Your task to perform on an android device: turn on the 12-hour format for clock Image 0: 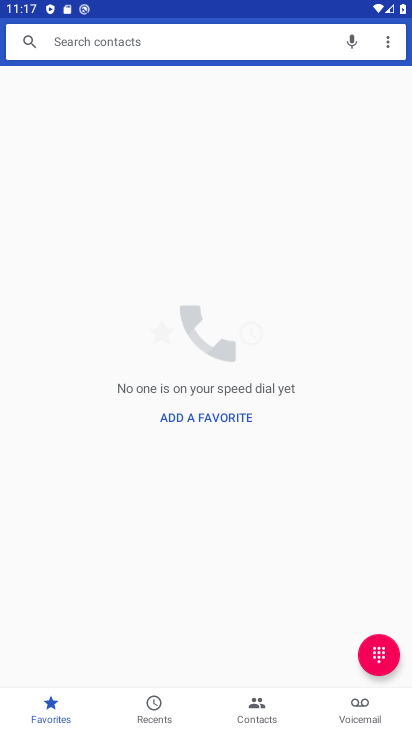
Step 0: press home button
Your task to perform on an android device: turn on the 12-hour format for clock Image 1: 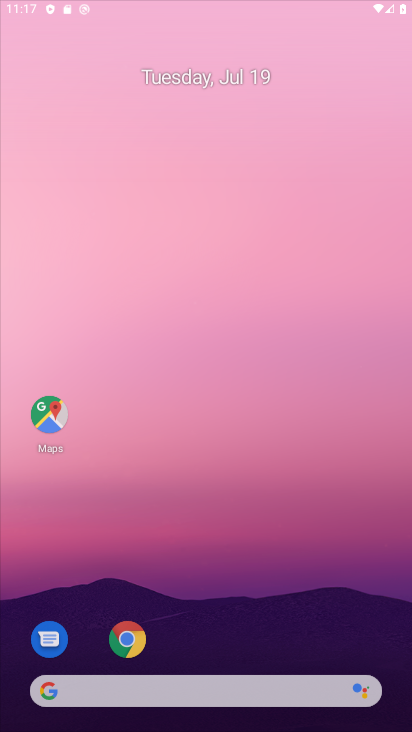
Step 1: drag from (211, 399) to (312, 71)
Your task to perform on an android device: turn on the 12-hour format for clock Image 2: 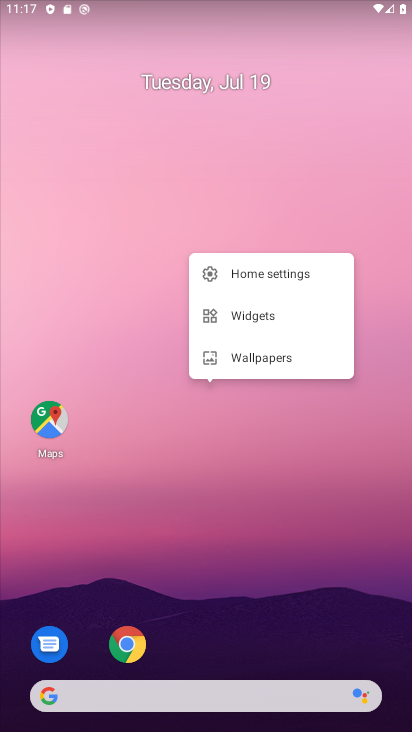
Step 2: drag from (237, 488) to (292, 97)
Your task to perform on an android device: turn on the 12-hour format for clock Image 3: 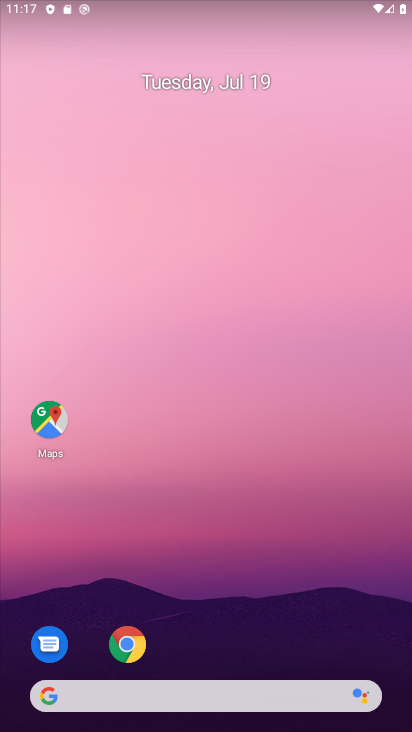
Step 3: drag from (320, 510) to (359, 17)
Your task to perform on an android device: turn on the 12-hour format for clock Image 4: 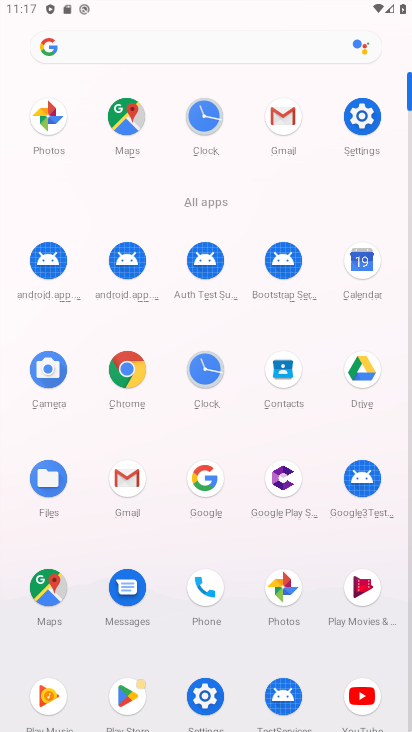
Step 4: click (205, 379)
Your task to perform on an android device: turn on the 12-hour format for clock Image 5: 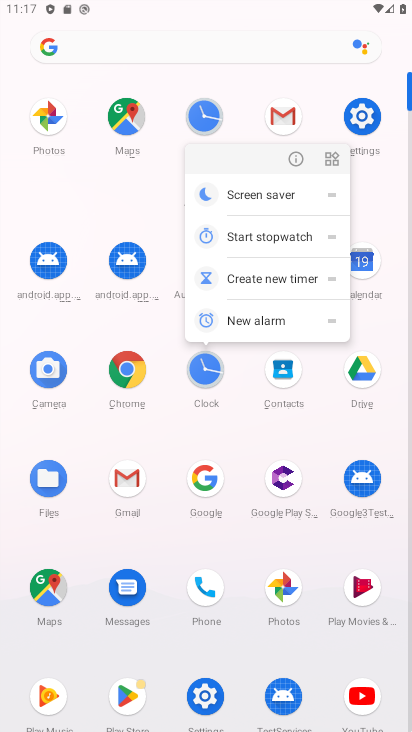
Step 5: click (293, 168)
Your task to perform on an android device: turn on the 12-hour format for clock Image 6: 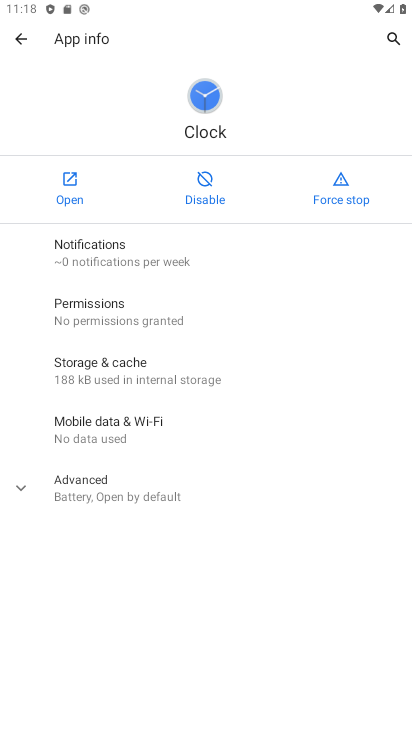
Step 6: click (70, 192)
Your task to perform on an android device: turn on the 12-hour format for clock Image 7: 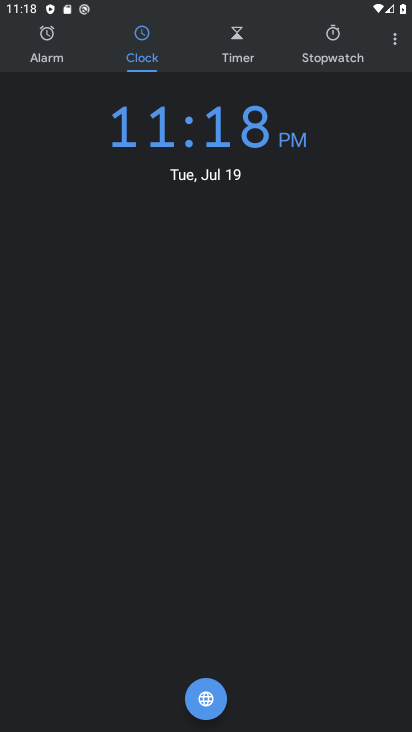
Step 7: click (390, 42)
Your task to perform on an android device: turn on the 12-hour format for clock Image 8: 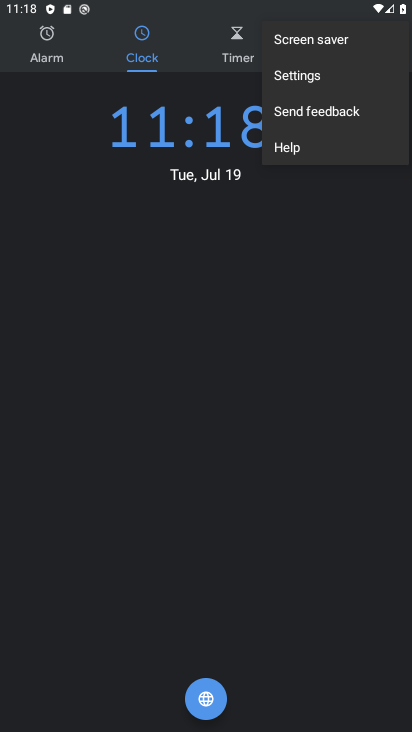
Step 8: click (299, 67)
Your task to perform on an android device: turn on the 12-hour format for clock Image 9: 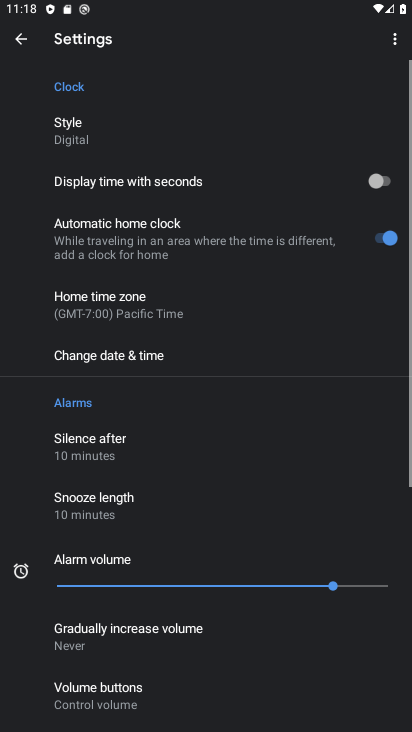
Step 9: drag from (224, 461) to (238, 202)
Your task to perform on an android device: turn on the 12-hour format for clock Image 10: 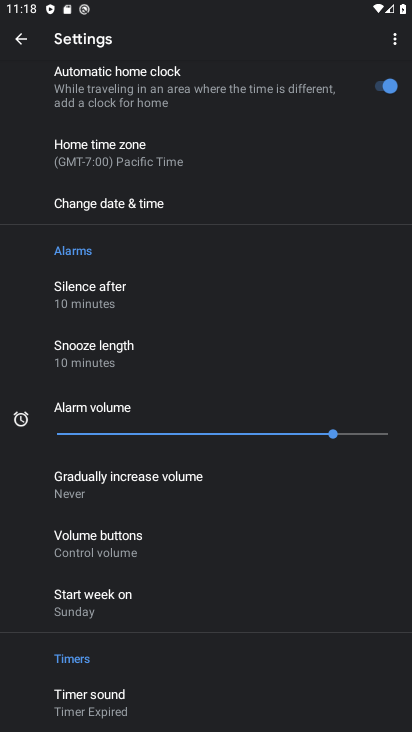
Step 10: drag from (201, 548) to (243, 198)
Your task to perform on an android device: turn on the 12-hour format for clock Image 11: 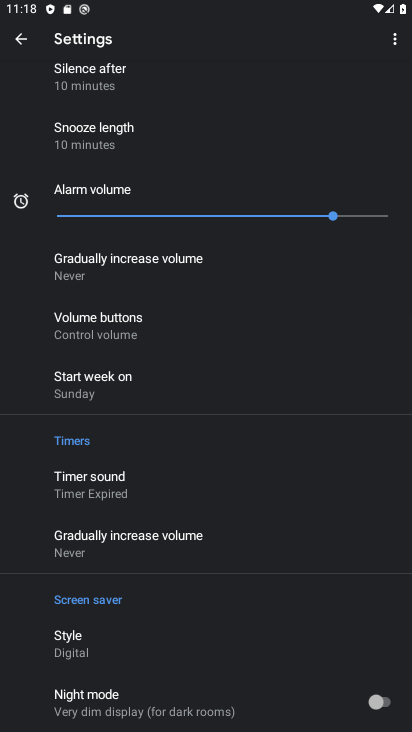
Step 11: drag from (226, 170) to (204, 436)
Your task to perform on an android device: turn on the 12-hour format for clock Image 12: 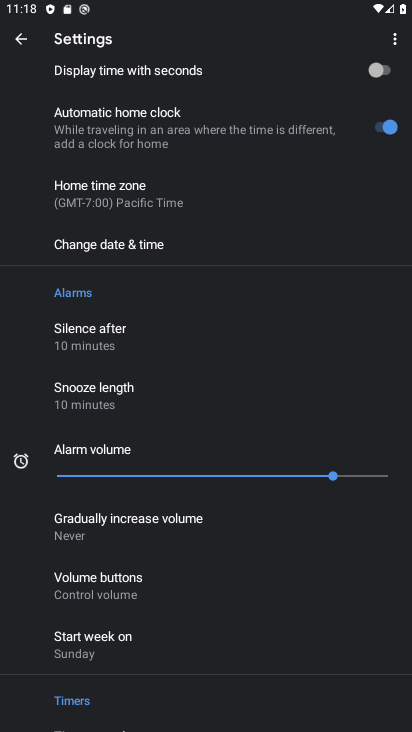
Step 12: drag from (253, 445) to (280, 237)
Your task to perform on an android device: turn on the 12-hour format for clock Image 13: 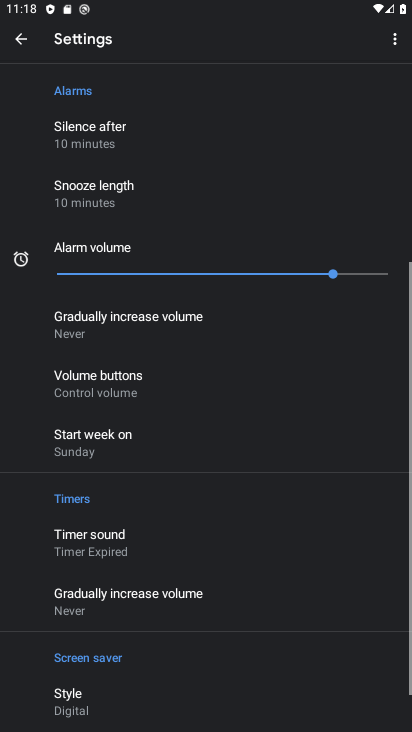
Step 13: drag from (278, 208) to (332, 623)
Your task to perform on an android device: turn on the 12-hour format for clock Image 14: 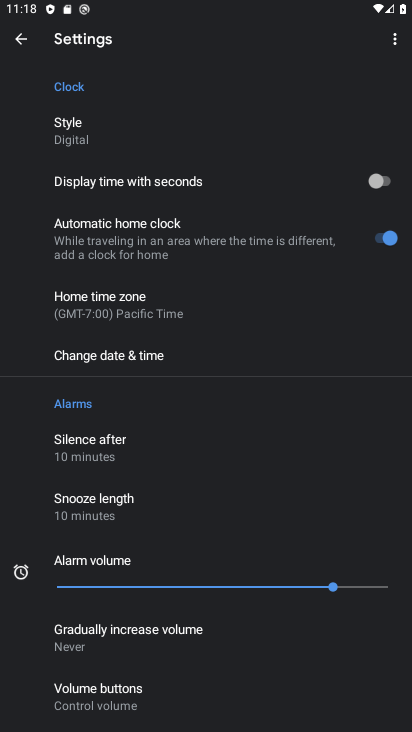
Step 14: click (152, 358)
Your task to perform on an android device: turn on the 12-hour format for clock Image 15: 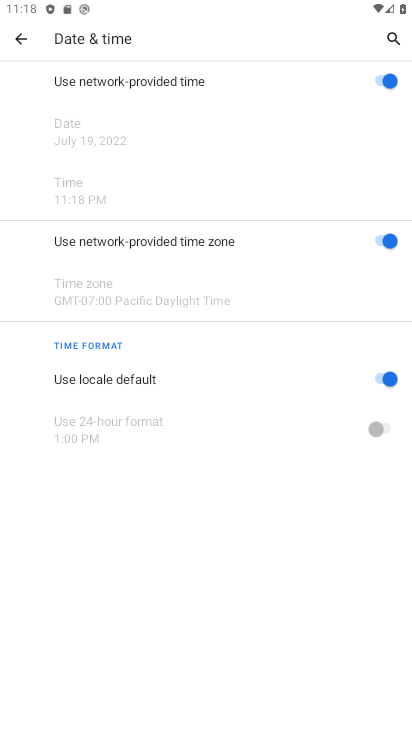
Step 15: task complete